Your task to perform on an android device: turn on the 12-hour format for clock Image 0: 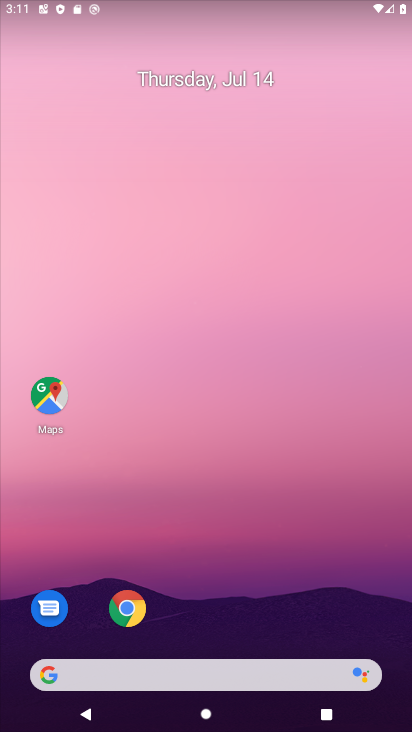
Step 0: drag from (28, 520) to (161, 162)
Your task to perform on an android device: turn on the 12-hour format for clock Image 1: 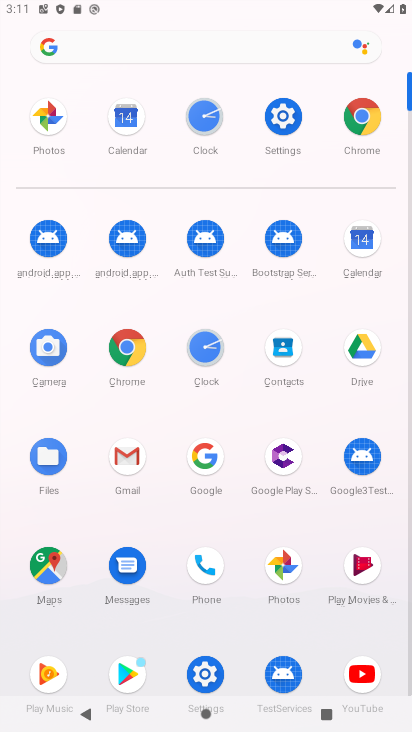
Step 1: click (201, 115)
Your task to perform on an android device: turn on the 12-hour format for clock Image 2: 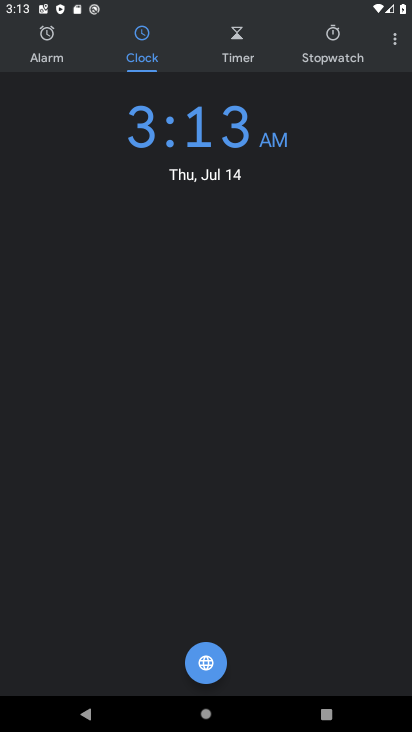
Step 2: click (391, 39)
Your task to perform on an android device: turn on the 12-hour format for clock Image 3: 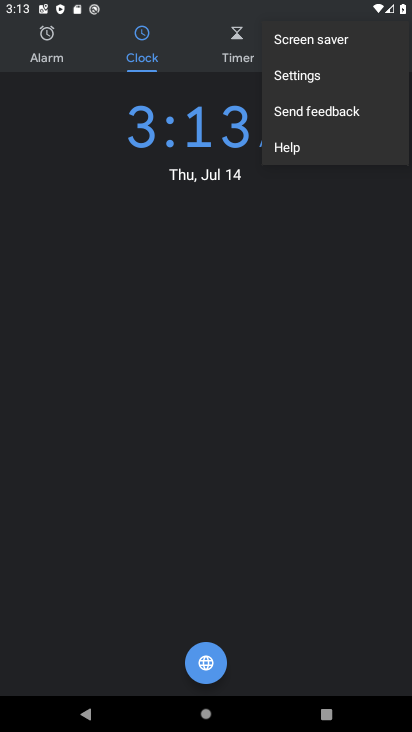
Step 3: click (292, 70)
Your task to perform on an android device: turn on the 12-hour format for clock Image 4: 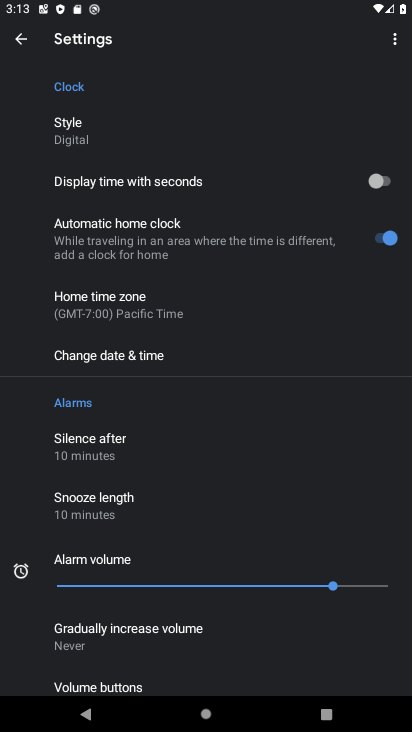
Step 4: click (110, 349)
Your task to perform on an android device: turn on the 12-hour format for clock Image 5: 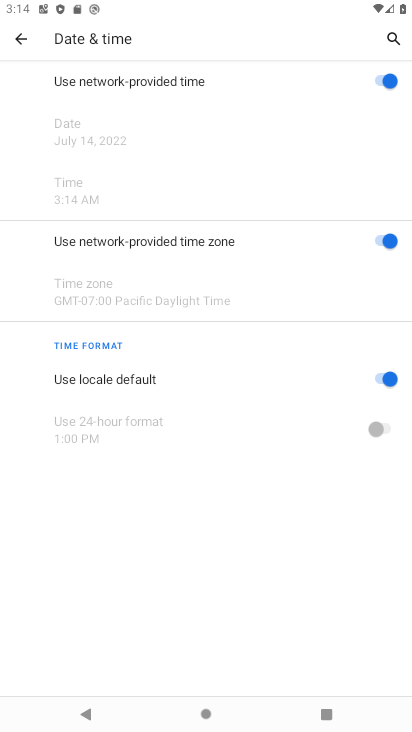
Step 5: task complete